Your task to perform on an android device: Set the phone to "Do not disturb". Image 0: 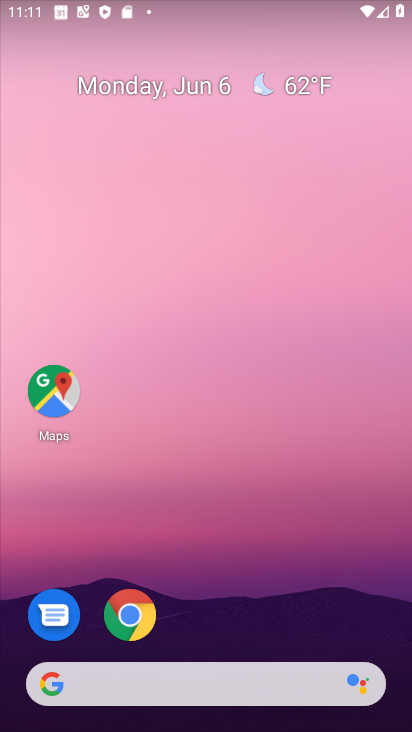
Step 0: drag from (274, 690) to (146, 3)
Your task to perform on an android device: Set the phone to "Do not disturb". Image 1: 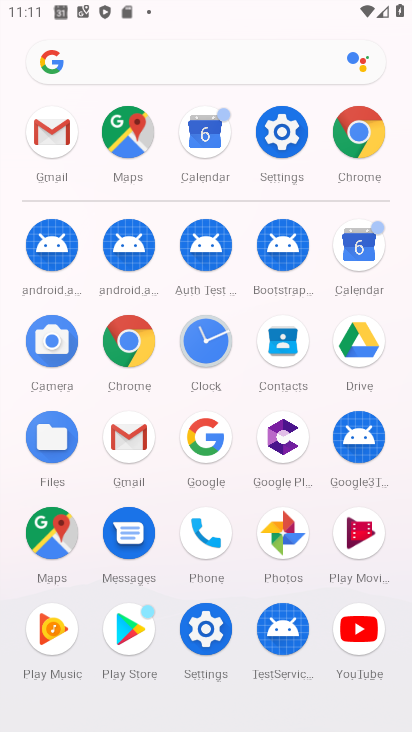
Step 1: click (281, 139)
Your task to perform on an android device: Set the phone to "Do not disturb". Image 2: 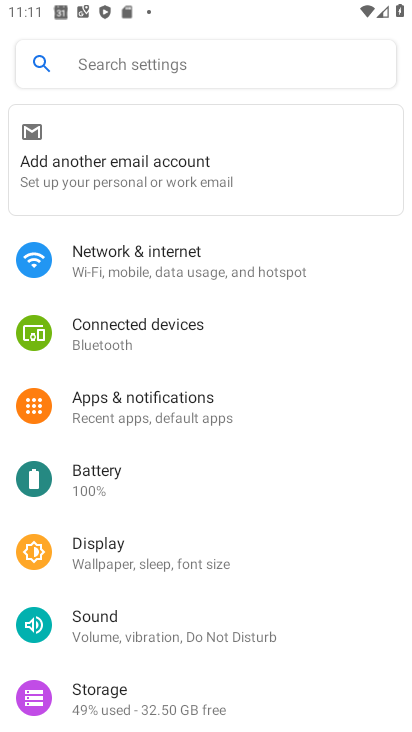
Step 2: click (111, 617)
Your task to perform on an android device: Set the phone to "Do not disturb". Image 3: 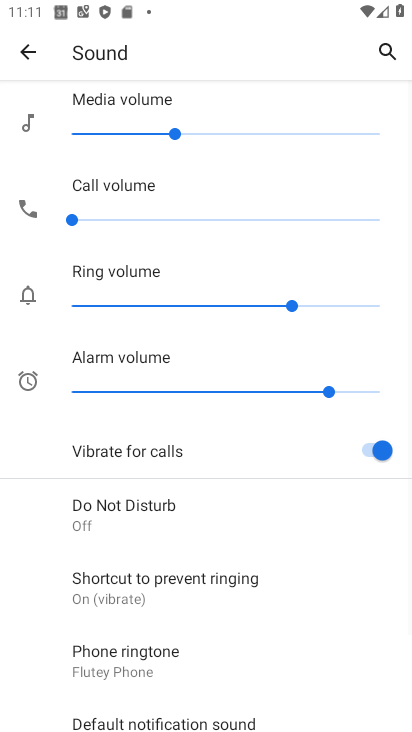
Step 3: click (186, 512)
Your task to perform on an android device: Set the phone to "Do not disturb". Image 4: 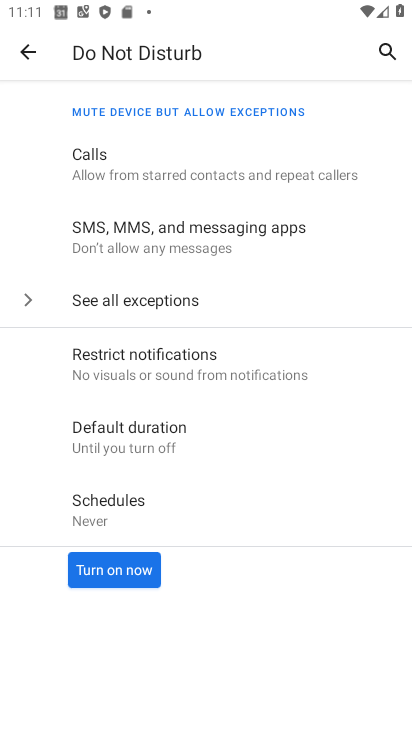
Step 4: click (139, 585)
Your task to perform on an android device: Set the phone to "Do not disturb". Image 5: 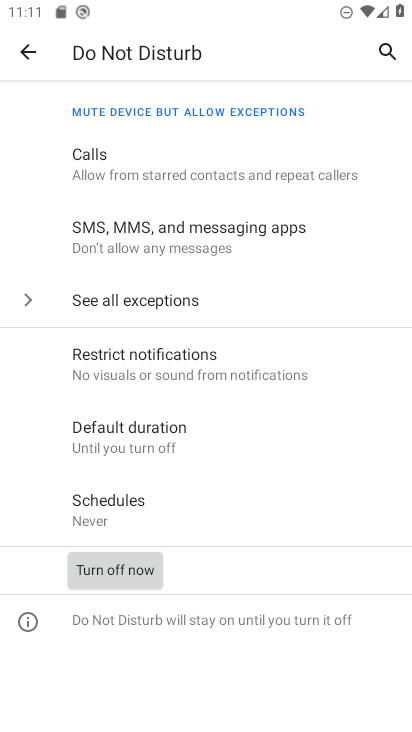
Step 5: task complete